Your task to perform on an android device: Go to internet settings Image 0: 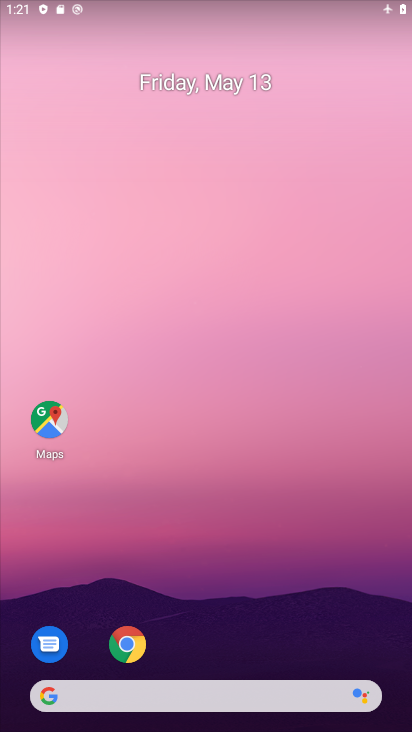
Step 0: drag from (293, 552) to (272, 117)
Your task to perform on an android device: Go to internet settings Image 1: 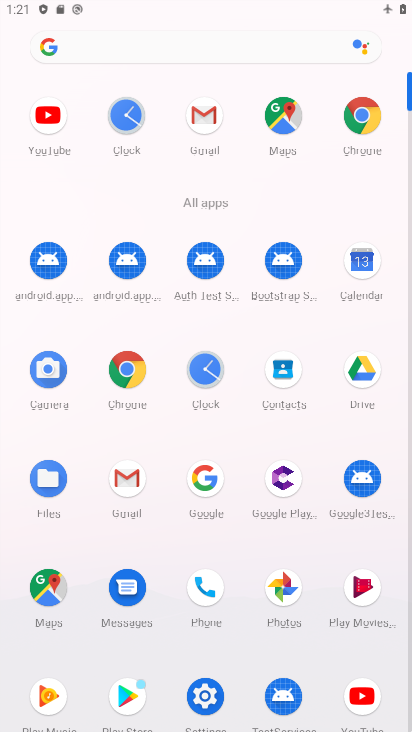
Step 1: click (210, 690)
Your task to perform on an android device: Go to internet settings Image 2: 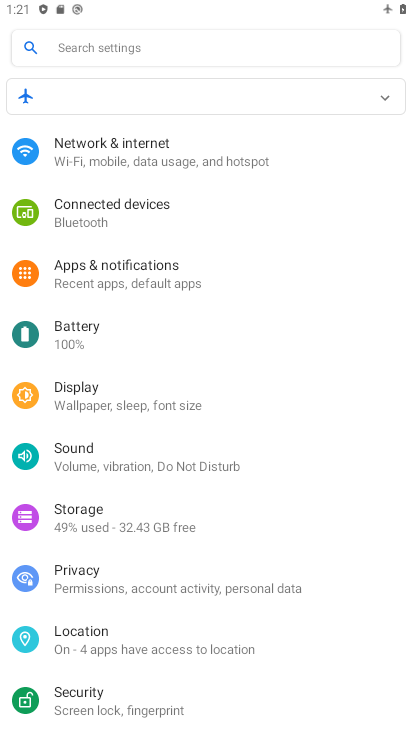
Step 2: click (211, 144)
Your task to perform on an android device: Go to internet settings Image 3: 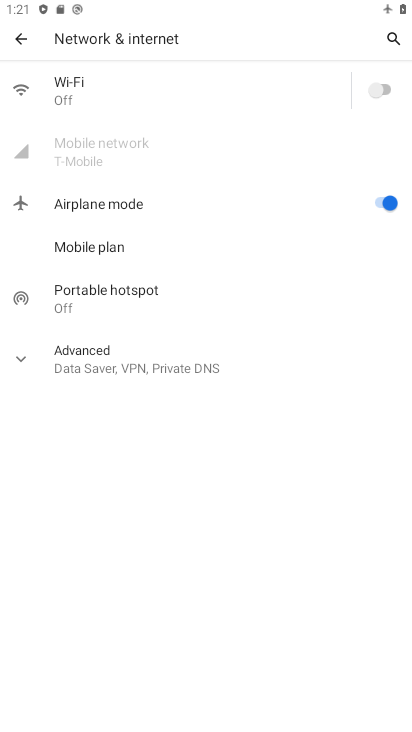
Step 3: task complete